Your task to perform on an android device: Open Google Chrome and click the shortcut for Amazon.com Image 0: 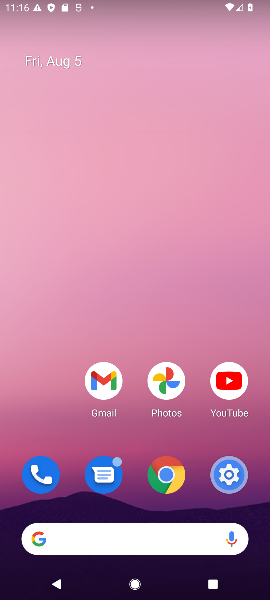
Step 0: click (161, 476)
Your task to perform on an android device: Open Google Chrome and click the shortcut for Amazon.com Image 1: 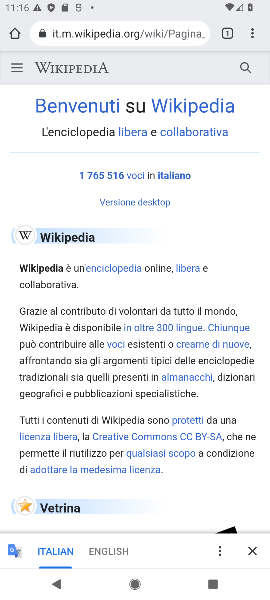
Step 1: click (248, 32)
Your task to perform on an android device: Open Google Chrome and click the shortcut for Amazon.com Image 2: 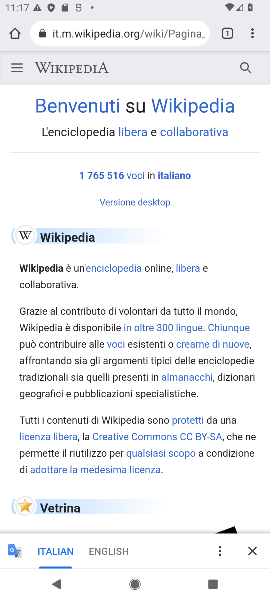
Step 2: click (228, 32)
Your task to perform on an android device: Open Google Chrome and click the shortcut for Amazon.com Image 3: 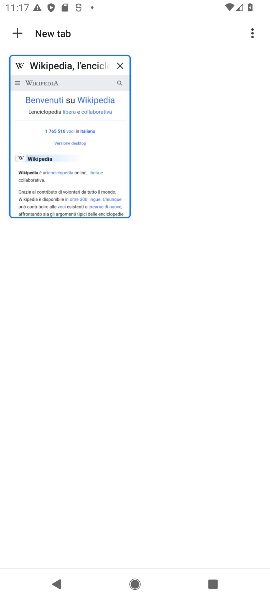
Step 3: click (25, 27)
Your task to perform on an android device: Open Google Chrome and click the shortcut for Amazon.com Image 4: 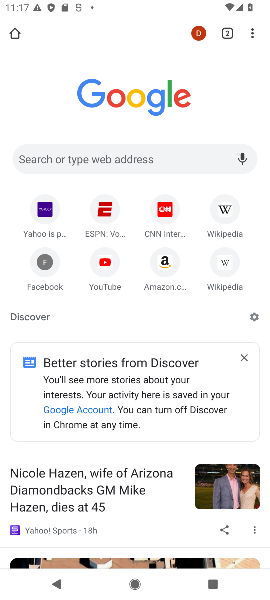
Step 4: click (161, 263)
Your task to perform on an android device: Open Google Chrome and click the shortcut for Amazon.com Image 5: 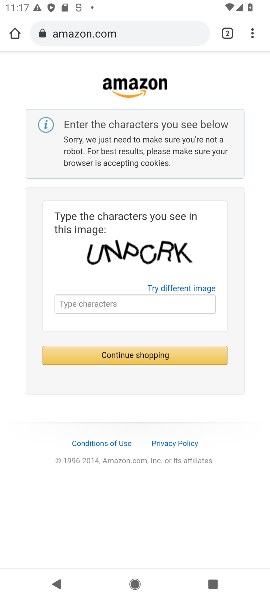
Step 5: task complete